Your task to perform on an android device: Open Amazon Image 0: 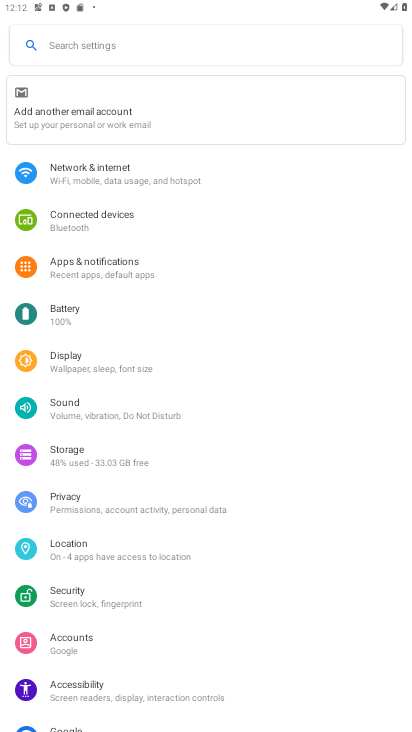
Step 0: press home button
Your task to perform on an android device: Open Amazon Image 1: 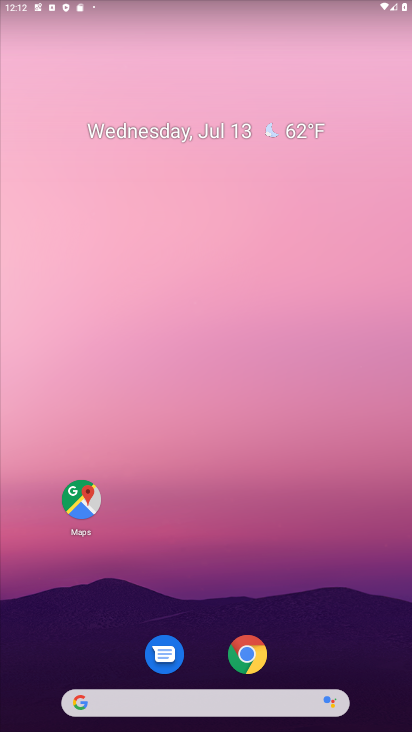
Step 1: drag from (226, 637) to (306, 1)
Your task to perform on an android device: Open Amazon Image 2: 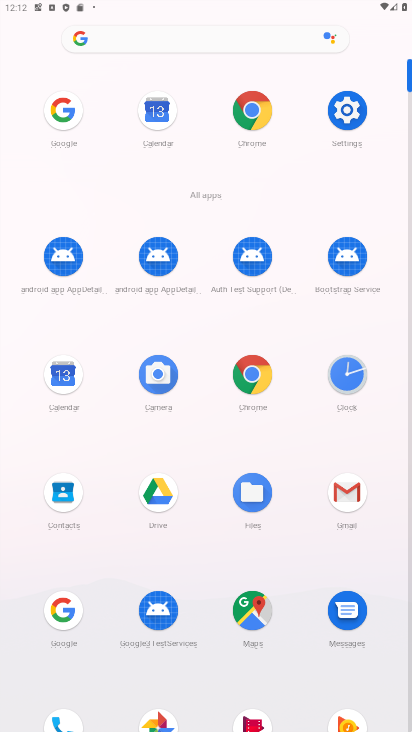
Step 2: click (245, 372)
Your task to perform on an android device: Open Amazon Image 3: 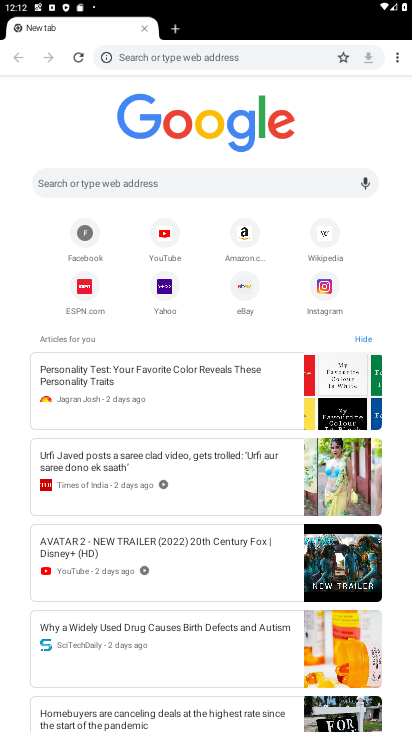
Step 3: click (235, 226)
Your task to perform on an android device: Open Amazon Image 4: 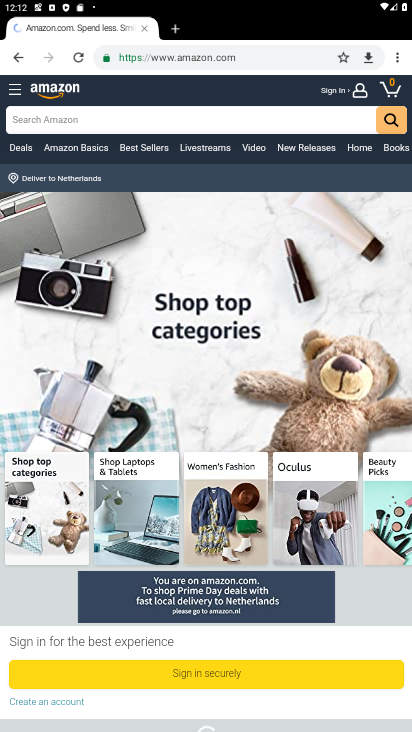
Step 4: task complete